Your task to perform on an android device: change timer sound Image 0: 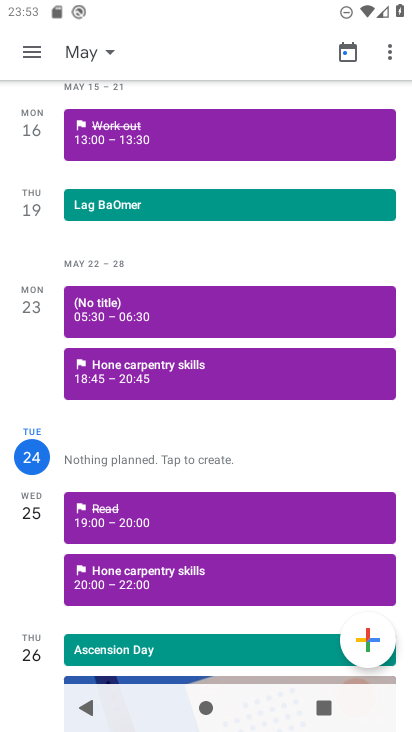
Step 0: press home button
Your task to perform on an android device: change timer sound Image 1: 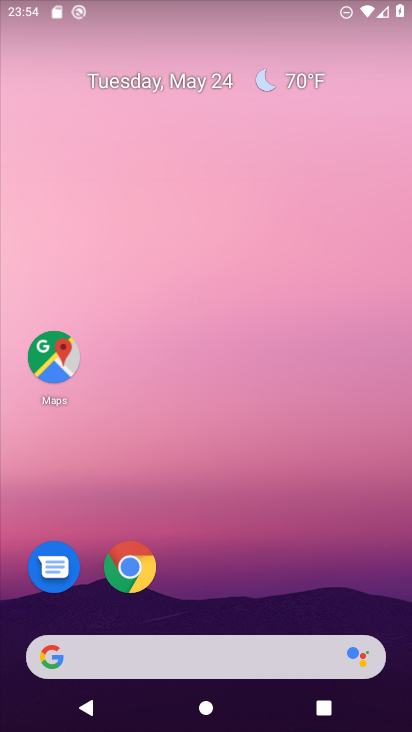
Step 1: drag from (290, 545) to (226, 93)
Your task to perform on an android device: change timer sound Image 2: 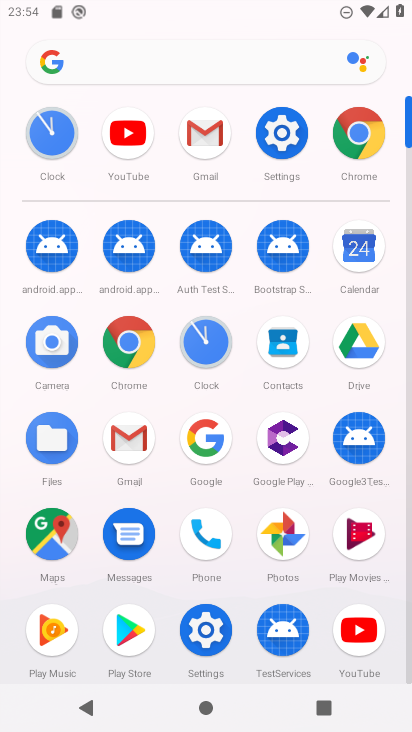
Step 2: click (229, 348)
Your task to perform on an android device: change timer sound Image 3: 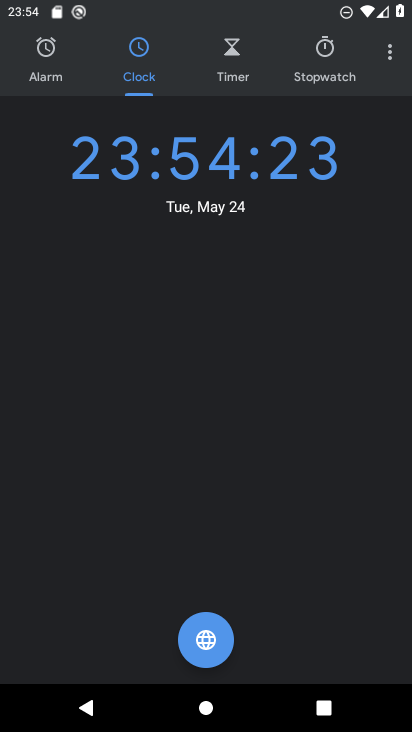
Step 3: click (380, 54)
Your task to perform on an android device: change timer sound Image 4: 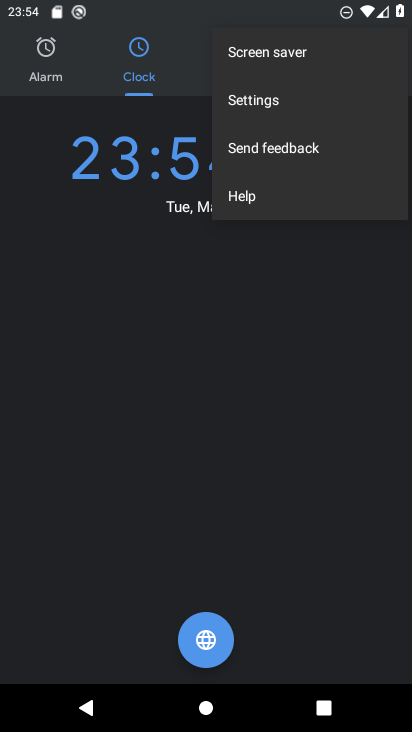
Step 4: click (275, 101)
Your task to perform on an android device: change timer sound Image 5: 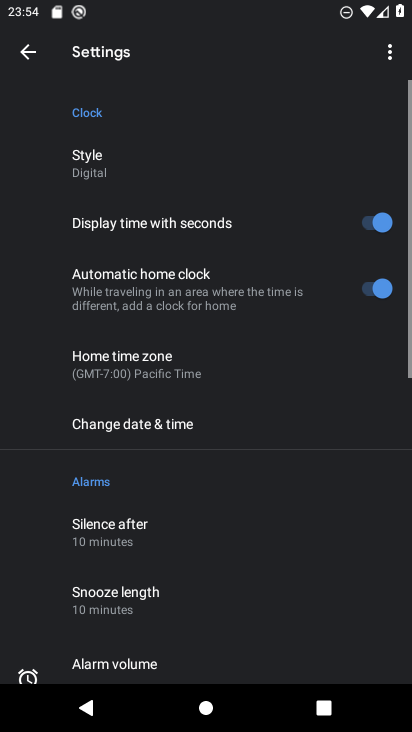
Step 5: drag from (240, 538) to (243, 280)
Your task to perform on an android device: change timer sound Image 6: 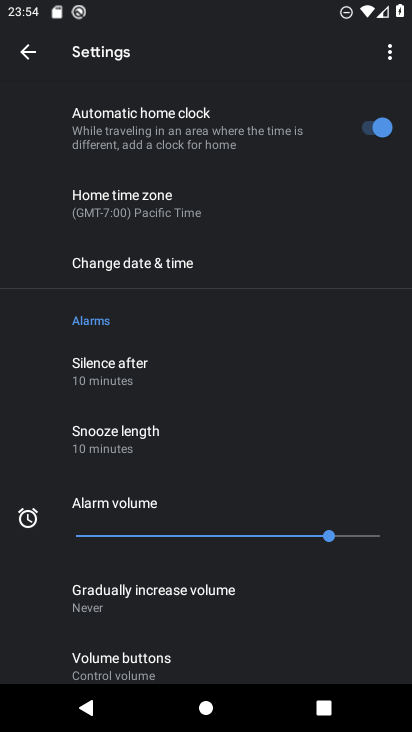
Step 6: drag from (267, 605) to (277, 246)
Your task to perform on an android device: change timer sound Image 7: 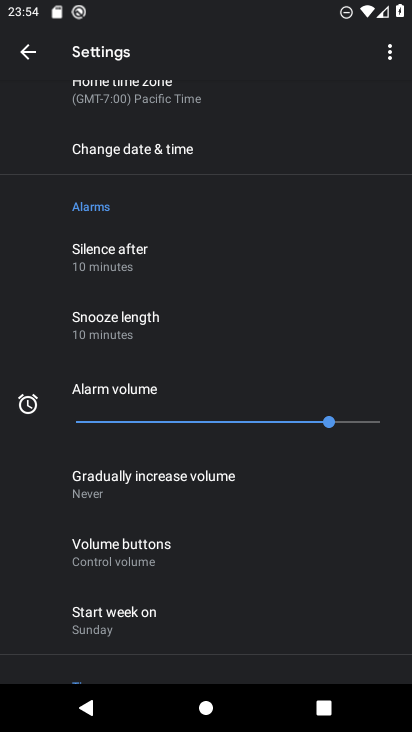
Step 7: drag from (224, 556) to (246, 199)
Your task to perform on an android device: change timer sound Image 8: 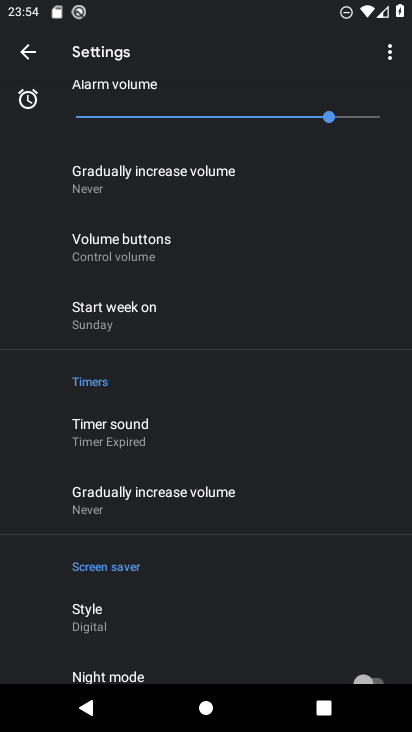
Step 8: click (152, 421)
Your task to perform on an android device: change timer sound Image 9: 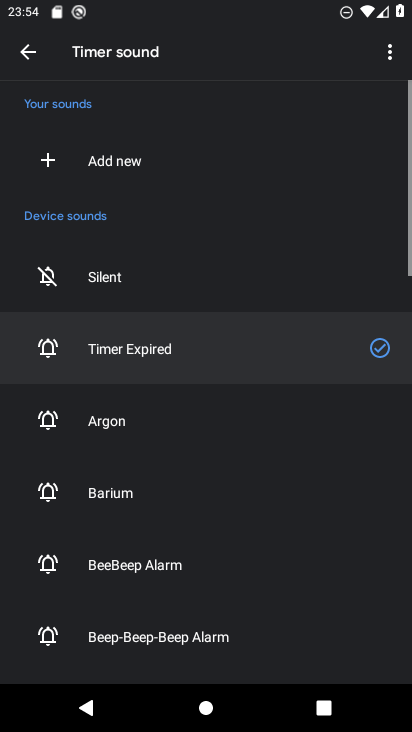
Step 9: click (211, 451)
Your task to perform on an android device: change timer sound Image 10: 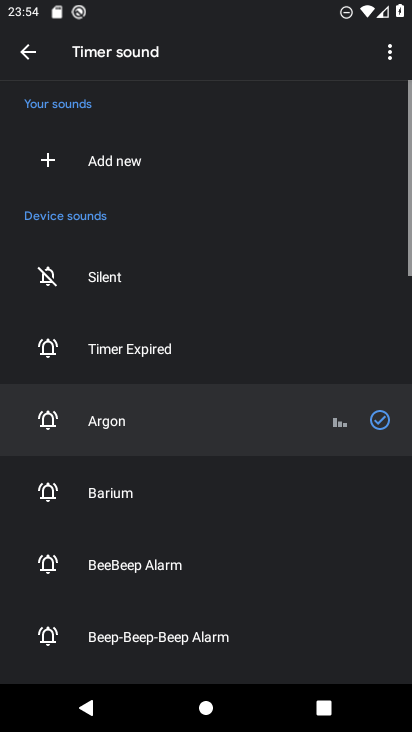
Step 10: task complete